Your task to perform on an android device: install app "Google Chat" Image 0: 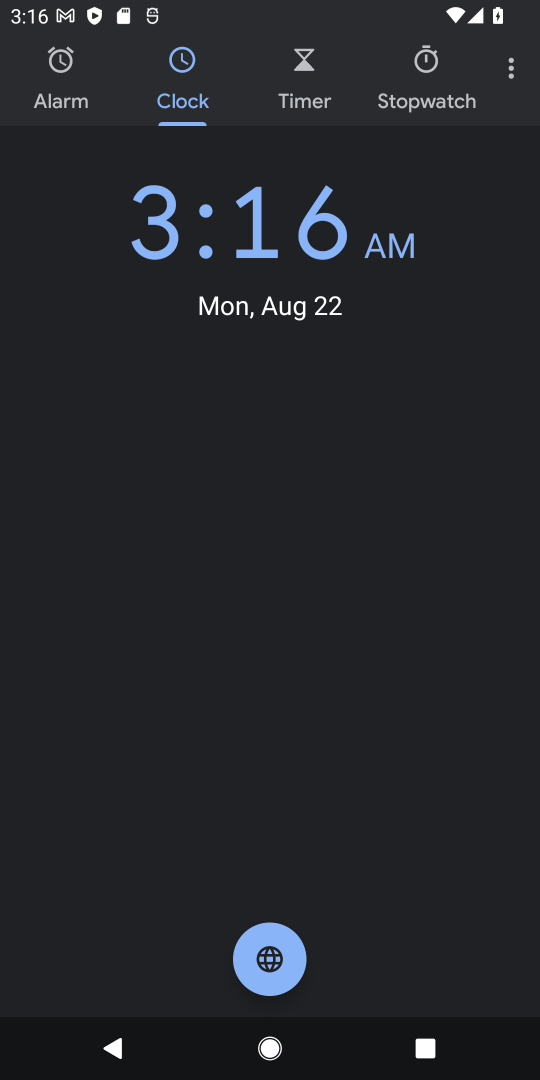
Step 0: press back button
Your task to perform on an android device: install app "Google Chat" Image 1: 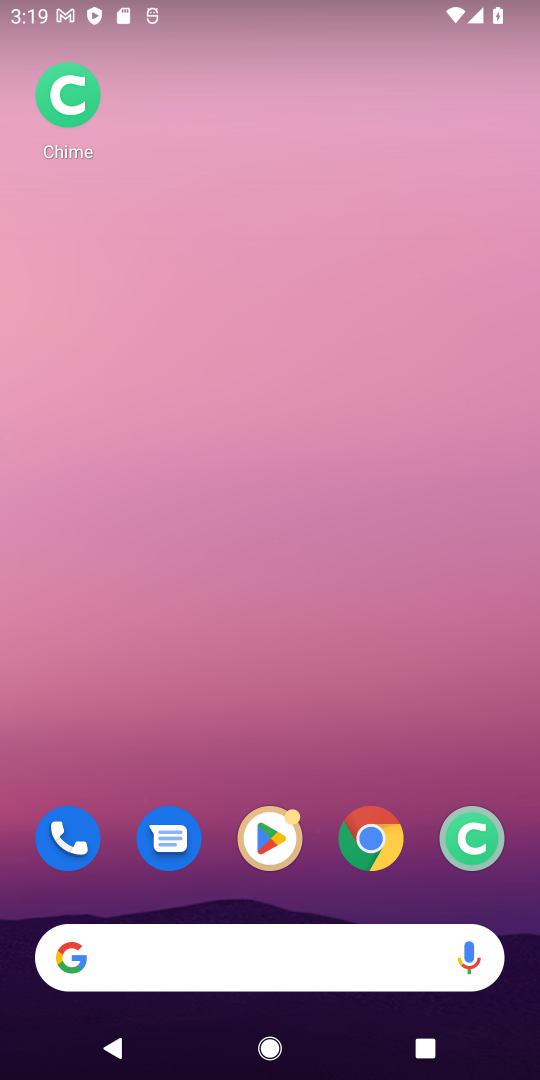
Step 1: click (282, 841)
Your task to perform on an android device: install app "Google Chat" Image 2: 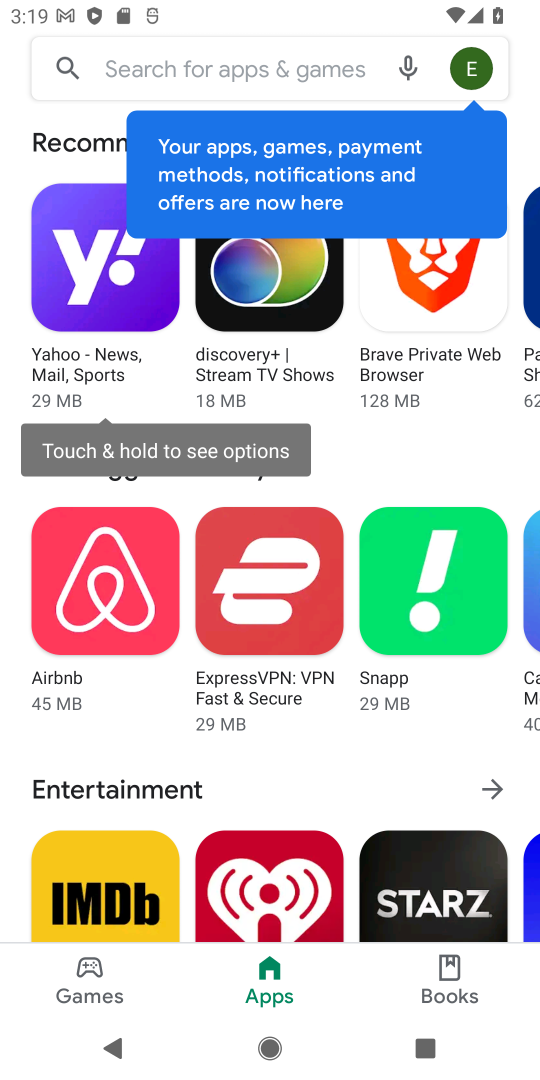
Step 2: click (219, 60)
Your task to perform on an android device: install app "Google Chat" Image 3: 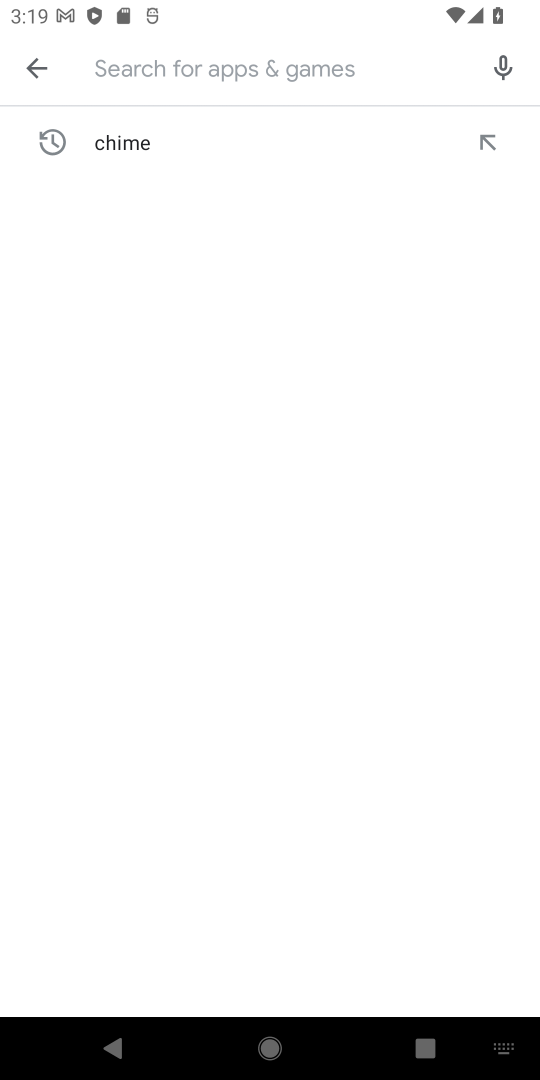
Step 3: click (185, 62)
Your task to perform on an android device: install app "Google Chat" Image 4: 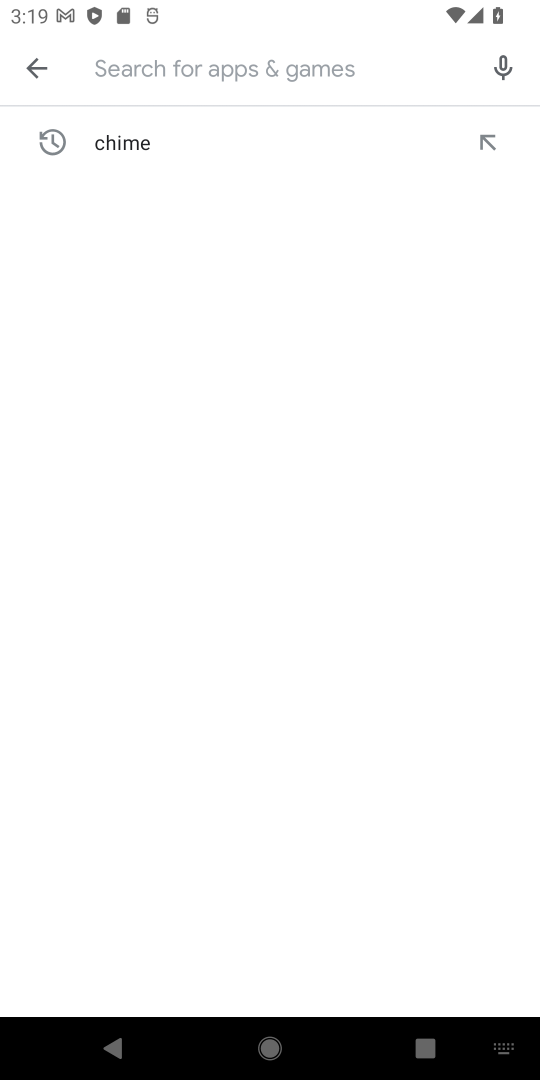
Step 4: type "Google Chat"
Your task to perform on an android device: install app "Google Chat" Image 5: 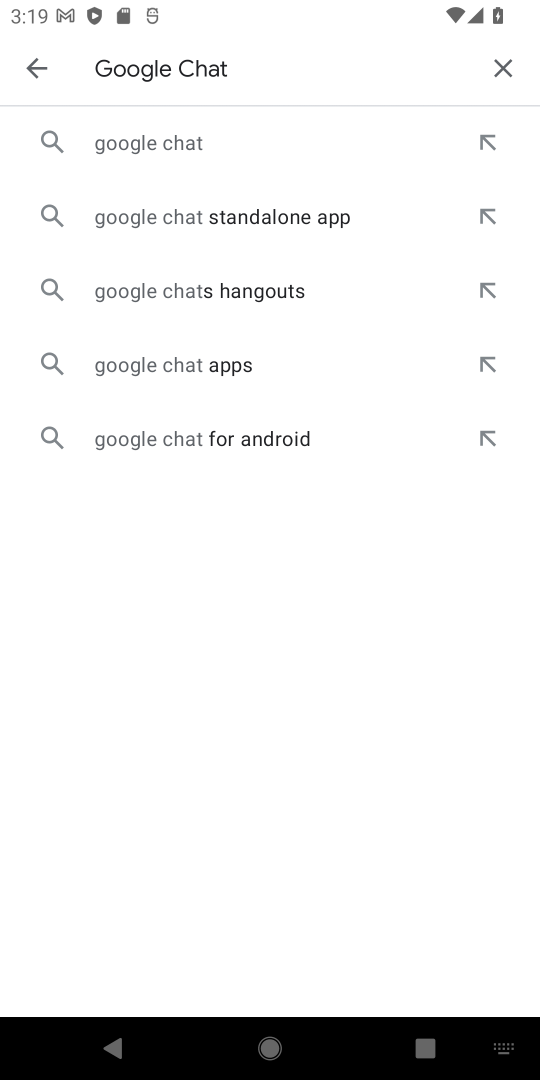
Step 5: click (104, 140)
Your task to perform on an android device: install app "Google Chat" Image 6: 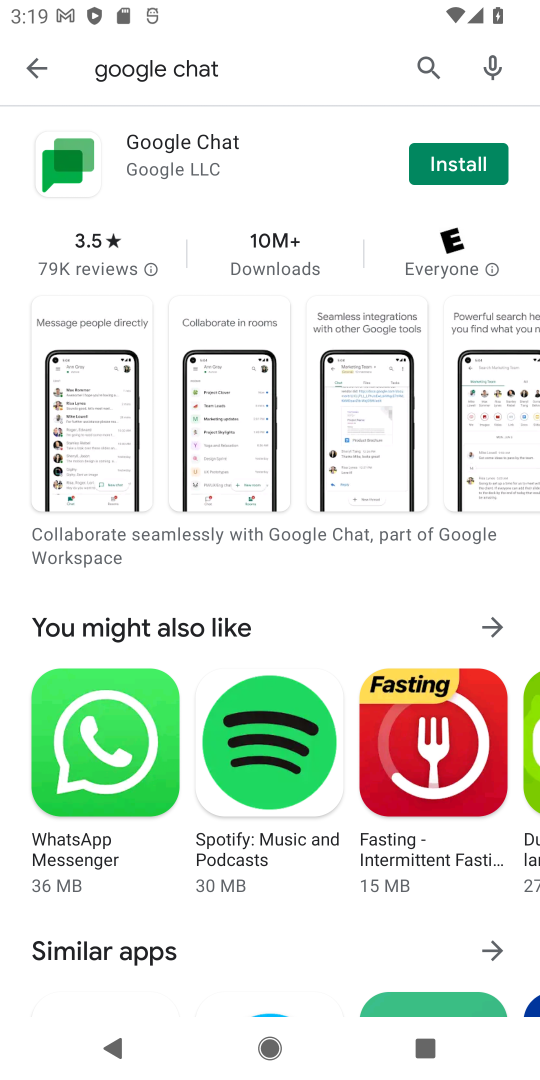
Step 6: click (482, 163)
Your task to perform on an android device: install app "Google Chat" Image 7: 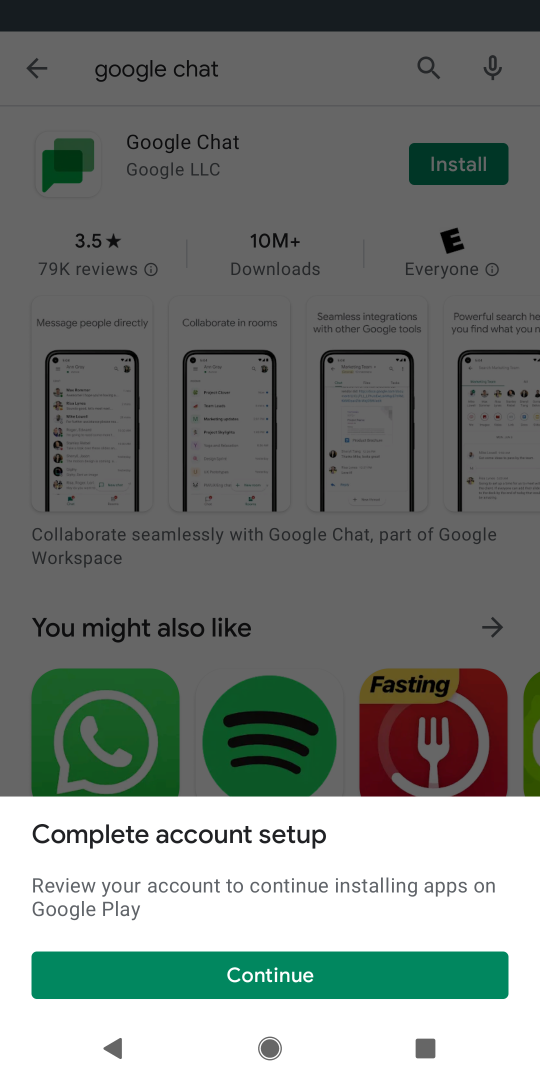
Step 7: click (355, 980)
Your task to perform on an android device: install app "Google Chat" Image 8: 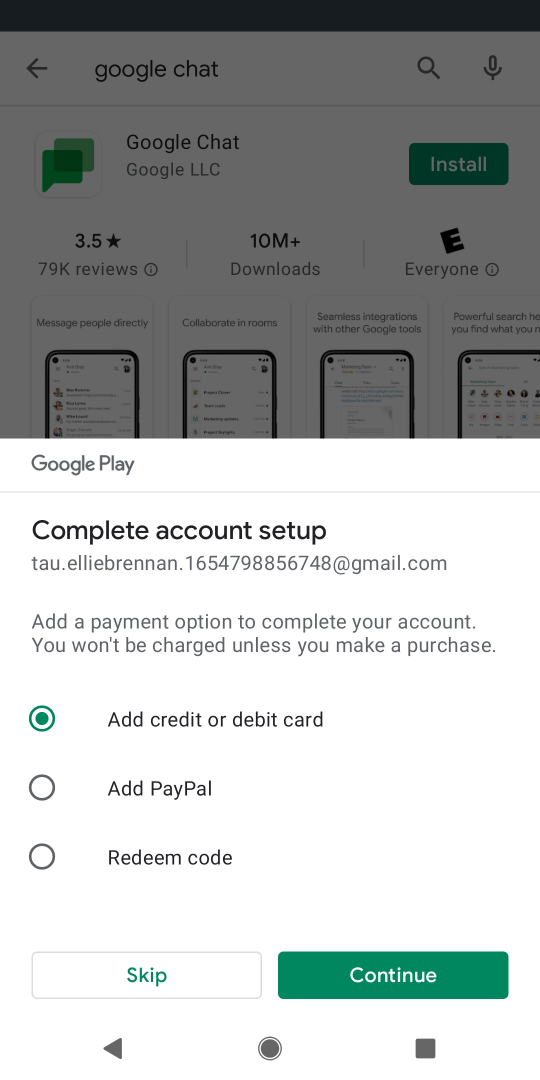
Step 8: click (200, 990)
Your task to perform on an android device: install app "Google Chat" Image 9: 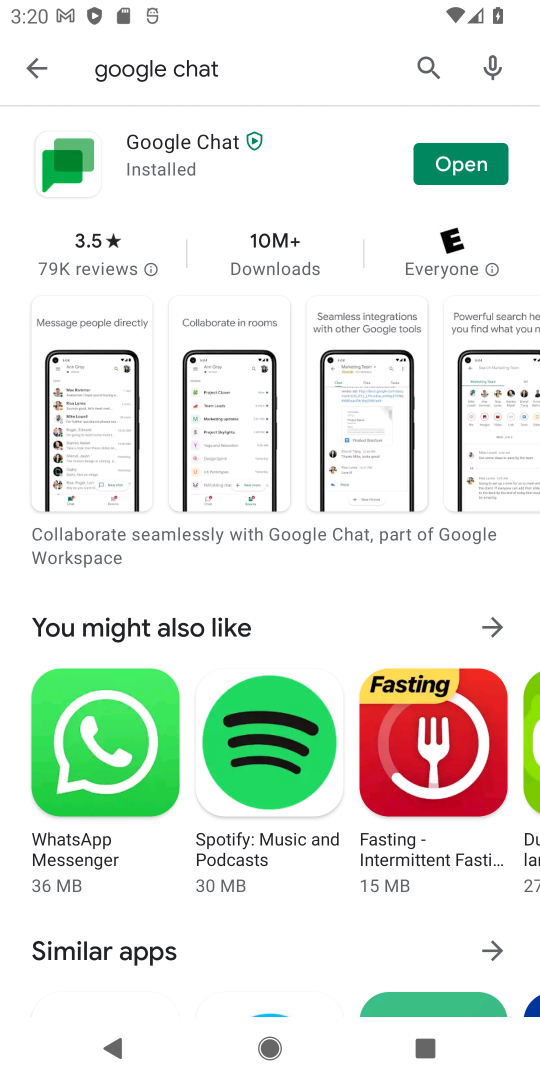
Step 9: task complete